Your task to perform on an android device: Search for seafood restaurants on Google Maps Image 0: 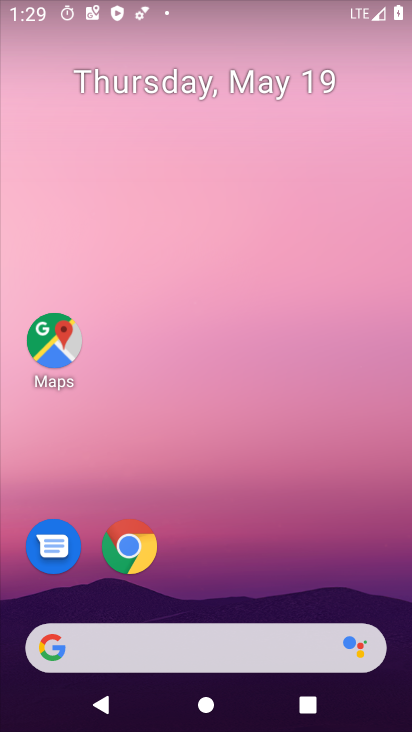
Step 0: click (39, 332)
Your task to perform on an android device: Search for seafood restaurants on Google Maps Image 1: 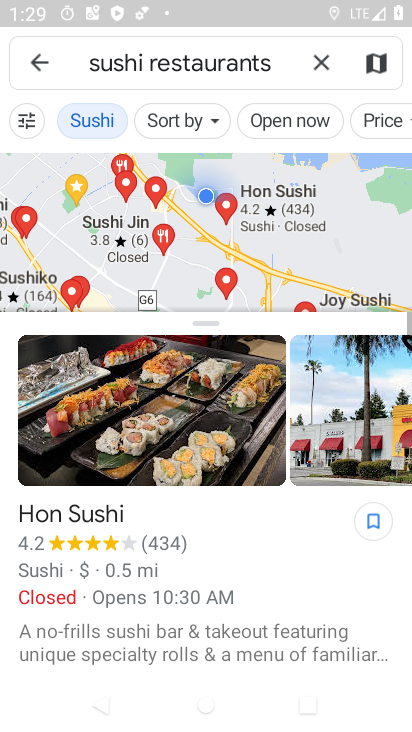
Step 1: click (326, 66)
Your task to perform on an android device: Search for seafood restaurants on Google Maps Image 2: 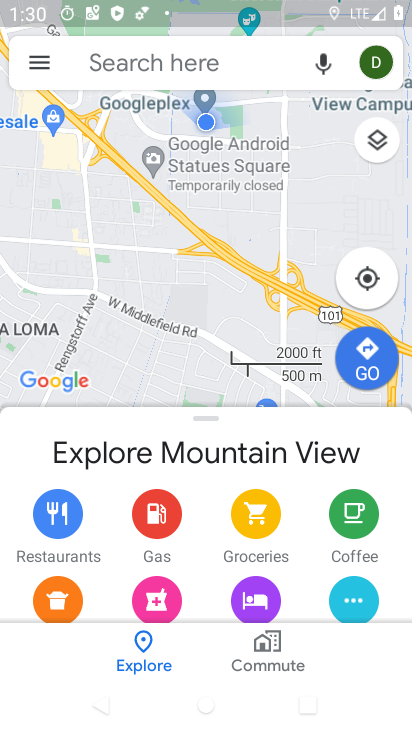
Step 2: click (224, 68)
Your task to perform on an android device: Search for seafood restaurants on Google Maps Image 3: 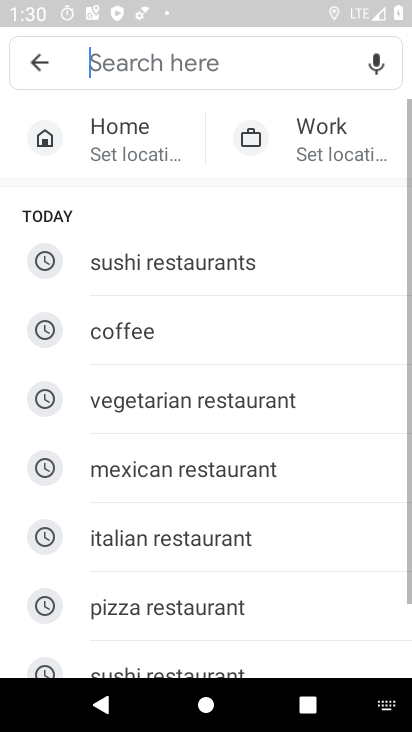
Step 3: click (224, 68)
Your task to perform on an android device: Search for seafood restaurants on Google Maps Image 4: 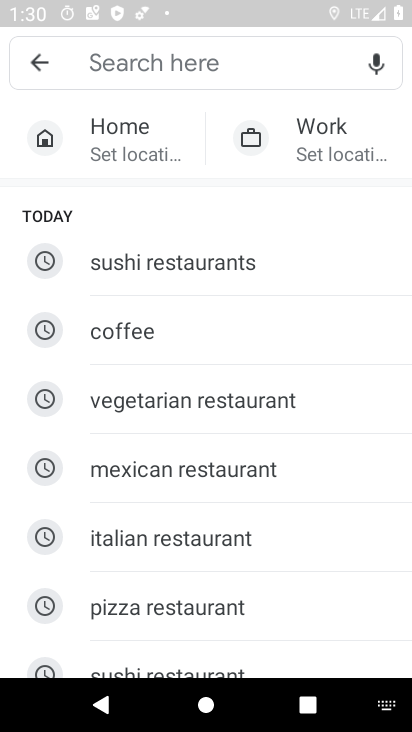
Step 4: type "seafood restaurant"
Your task to perform on an android device: Search for seafood restaurants on Google Maps Image 5: 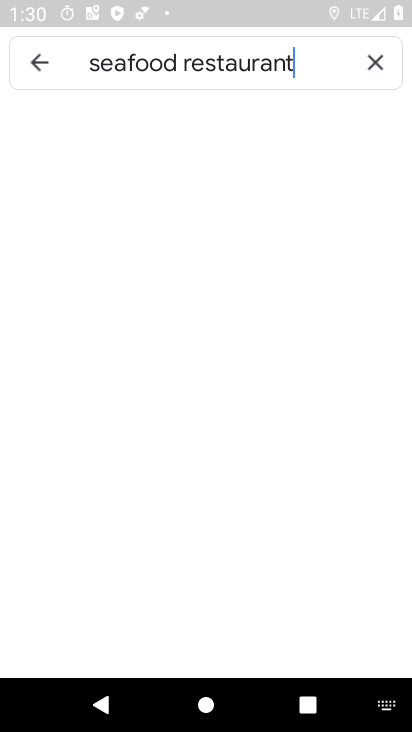
Step 5: type ""
Your task to perform on an android device: Search for seafood restaurants on Google Maps Image 6: 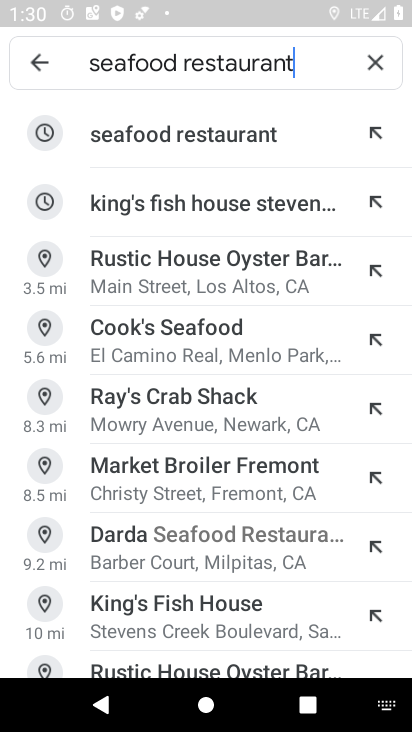
Step 6: click (159, 145)
Your task to perform on an android device: Search for seafood restaurants on Google Maps Image 7: 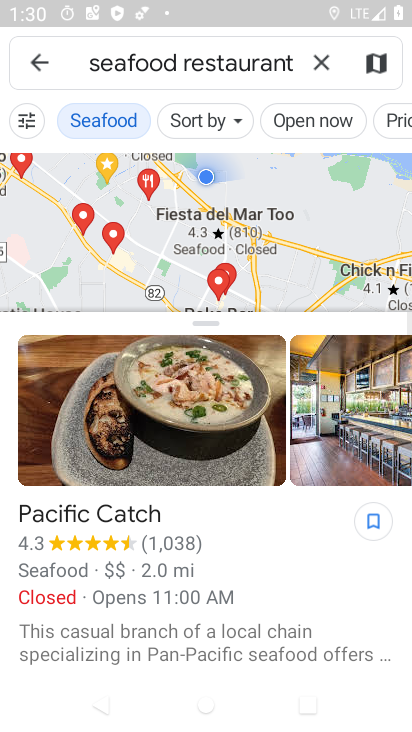
Step 7: task complete